Your task to perform on an android device: toggle priority inbox in the gmail app Image 0: 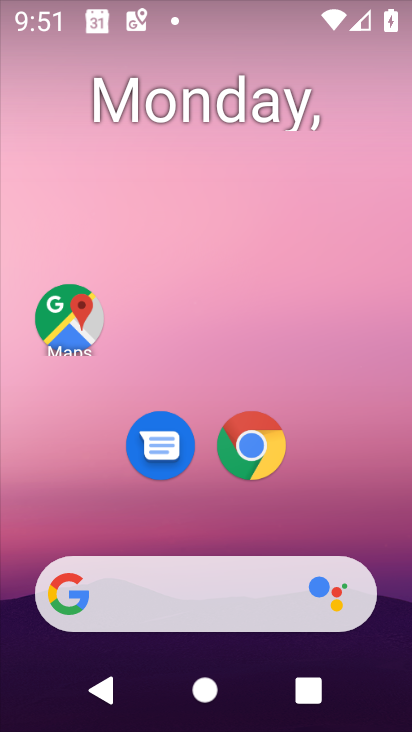
Step 0: drag from (257, 588) to (252, 9)
Your task to perform on an android device: toggle priority inbox in the gmail app Image 1: 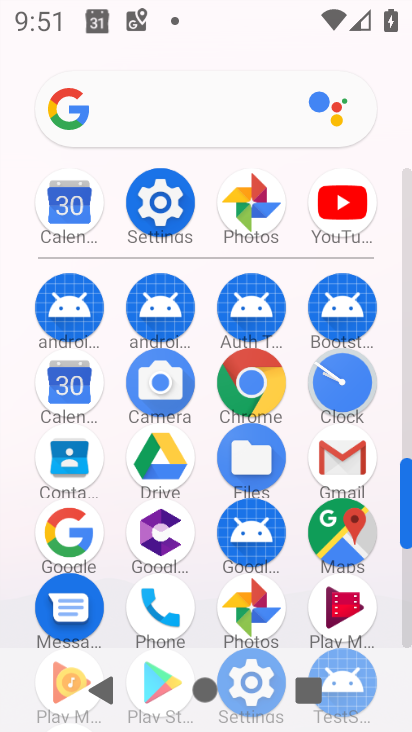
Step 1: click (357, 474)
Your task to perform on an android device: toggle priority inbox in the gmail app Image 2: 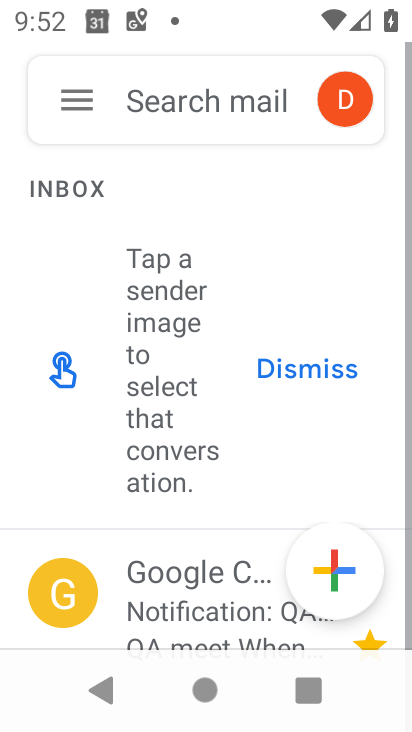
Step 2: click (90, 101)
Your task to perform on an android device: toggle priority inbox in the gmail app Image 3: 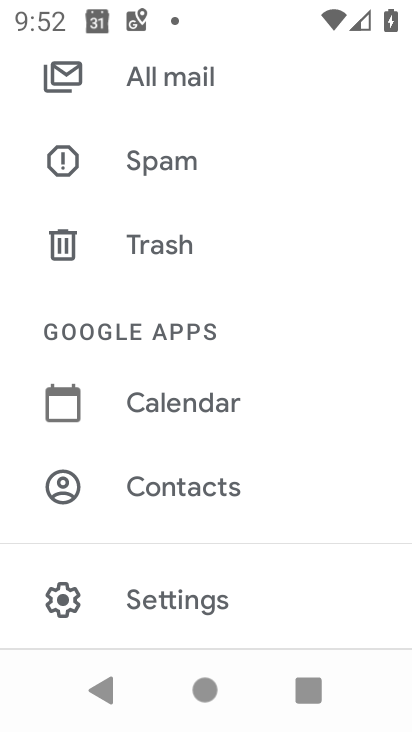
Step 3: click (162, 614)
Your task to perform on an android device: toggle priority inbox in the gmail app Image 4: 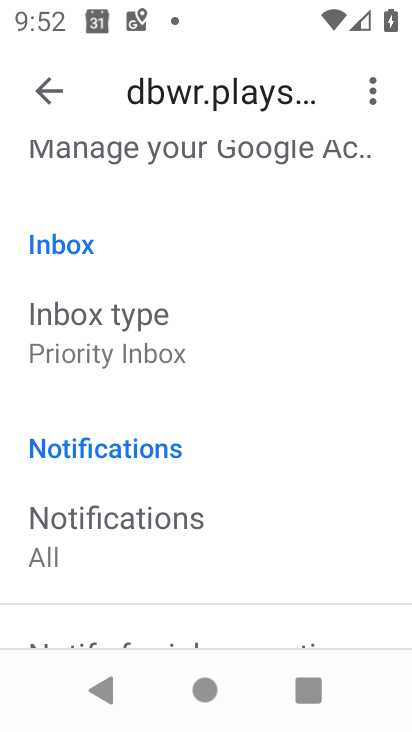
Step 4: task complete